Your task to perform on an android device: When is my next meeting? Image 0: 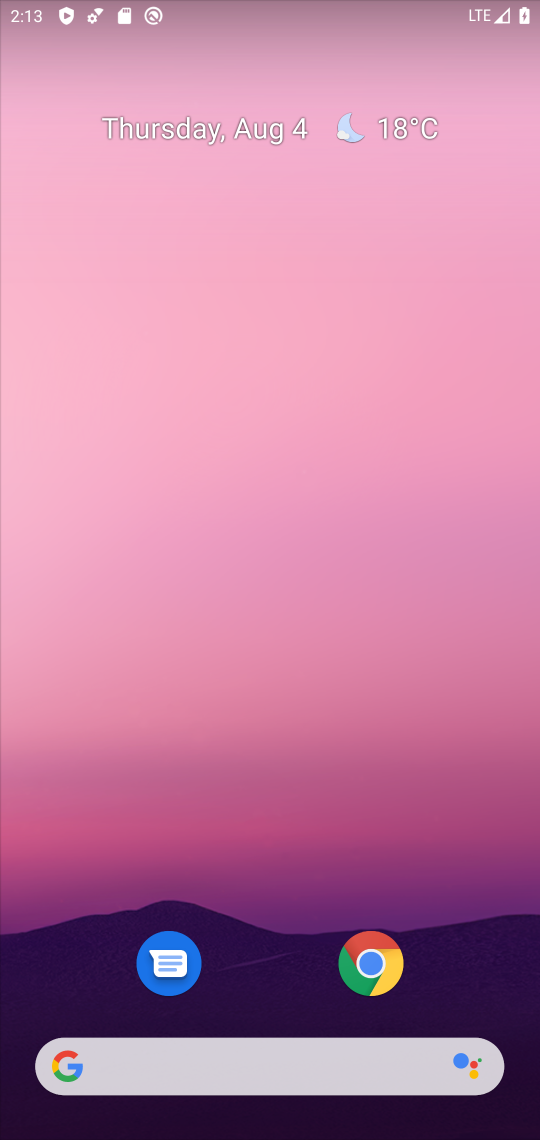
Step 0: drag from (210, 1082) to (182, 123)
Your task to perform on an android device: When is my next meeting? Image 1: 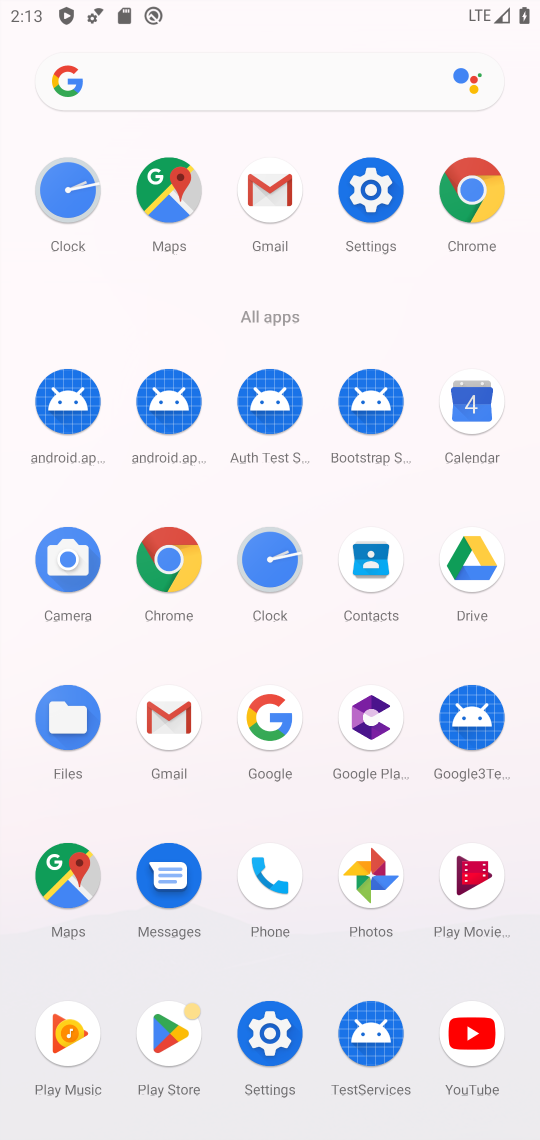
Step 1: click (461, 427)
Your task to perform on an android device: When is my next meeting? Image 2: 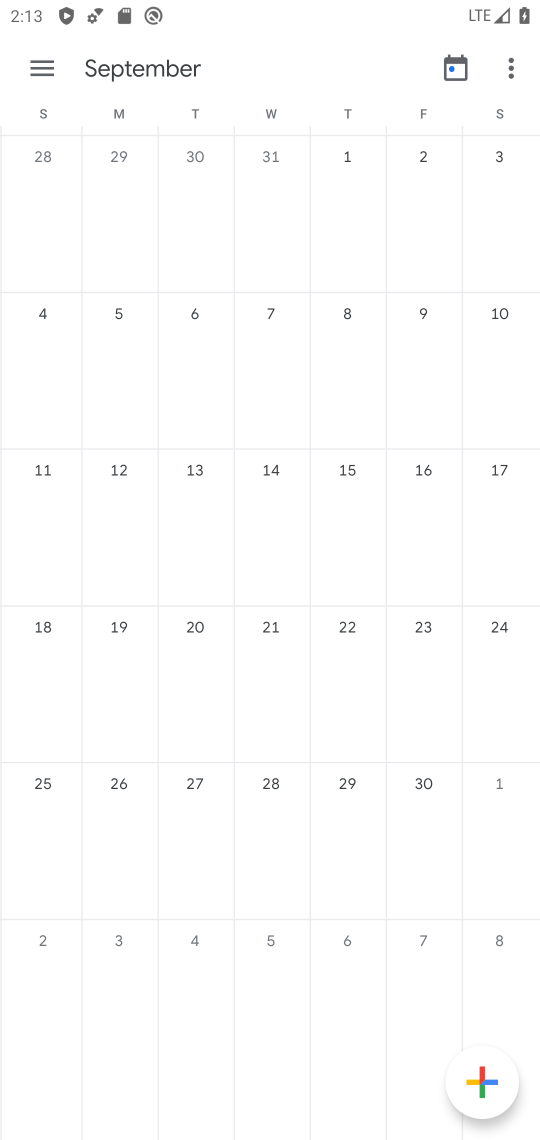
Step 2: drag from (105, 434) to (524, 434)
Your task to perform on an android device: When is my next meeting? Image 3: 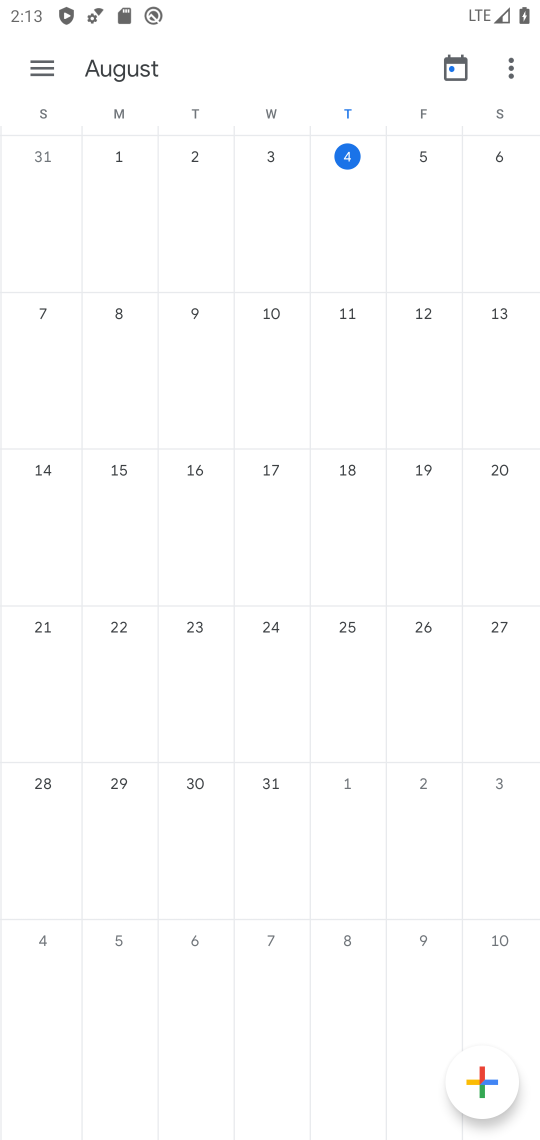
Step 3: click (49, 75)
Your task to perform on an android device: When is my next meeting? Image 4: 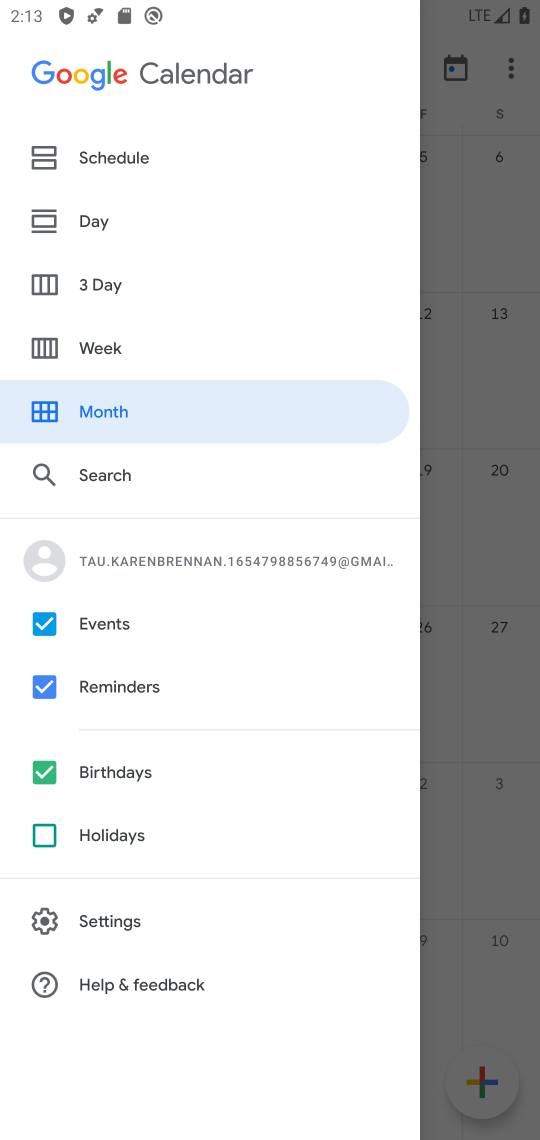
Step 4: click (93, 161)
Your task to perform on an android device: When is my next meeting? Image 5: 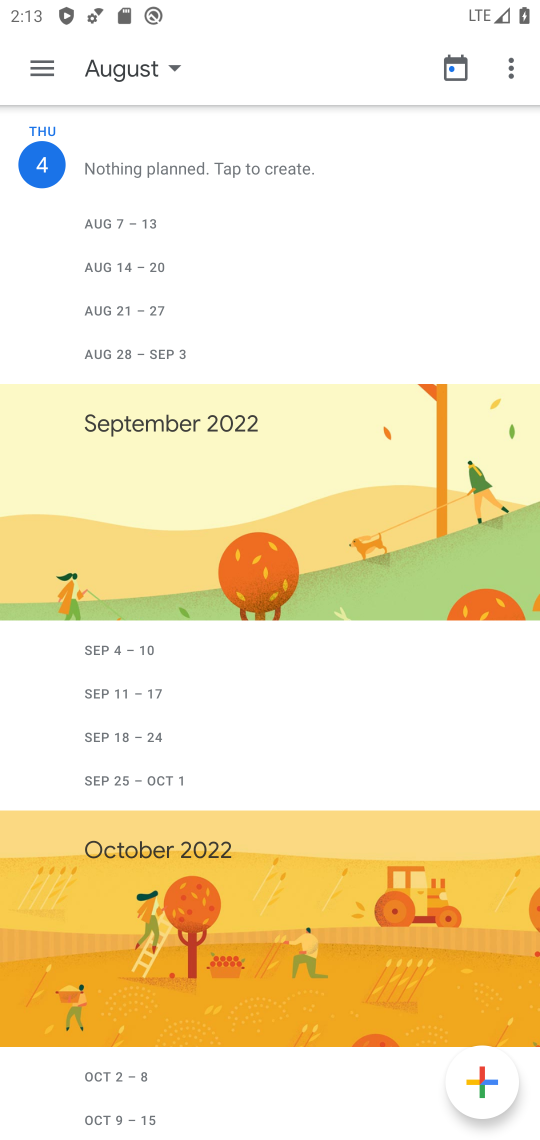
Step 5: task complete